Your task to perform on an android device: open chrome and create a bookmark for the current page Image 0: 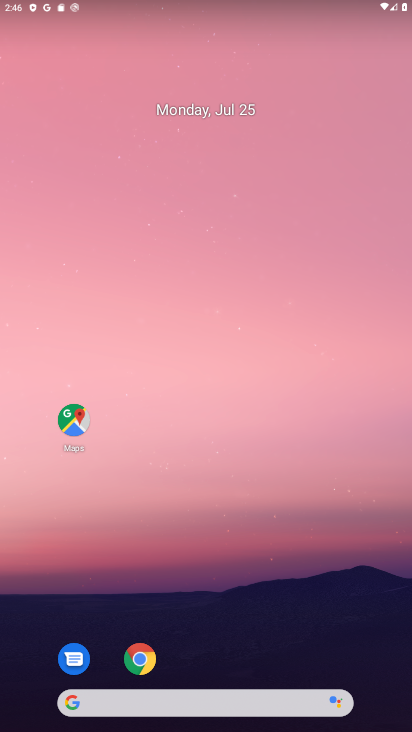
Step 0: drag from (222, 665) to (407, 65)
Your task to perform on an android device: open chrome and create a bookmark for the current page Image 1: 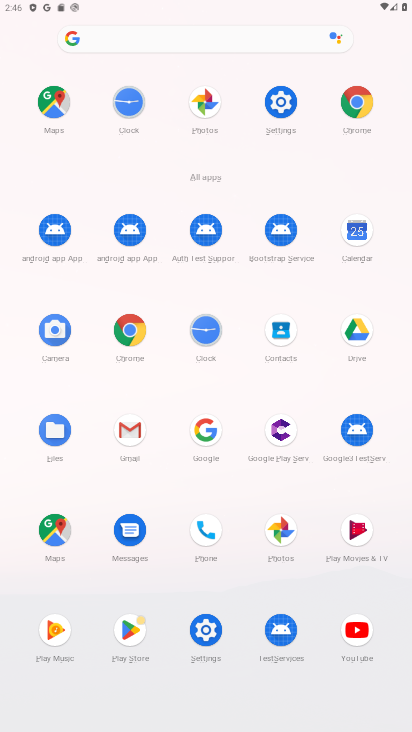
Step 1: click (133, 332)
Your task to perform on an android device: open chrome and create a bookmark for the current page Image 2: 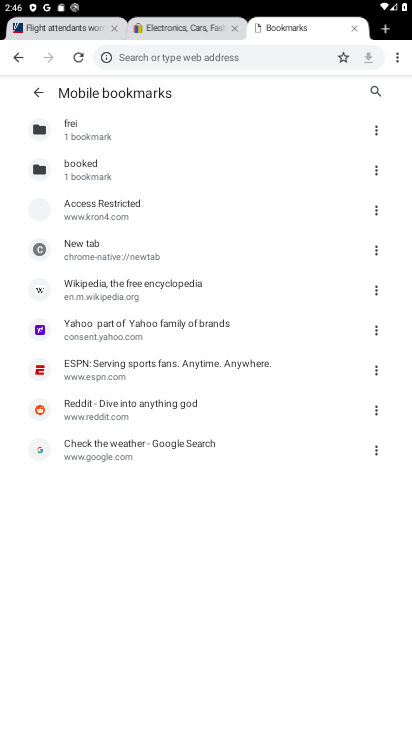
Step 2: click (348, 60)
Your task to perform on an android device: open chrome and create a bookmark for the current page Image 3: 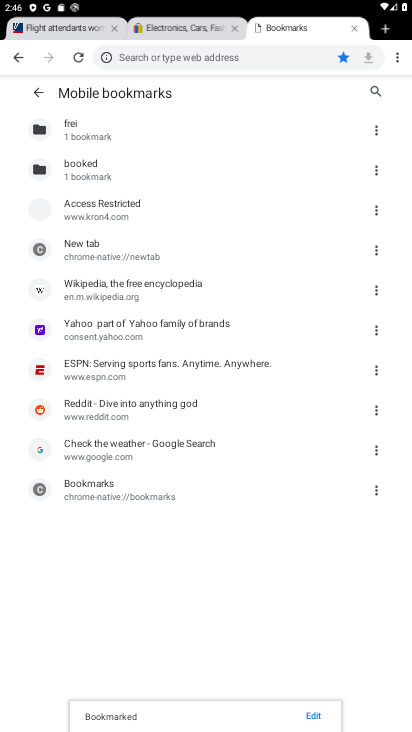
Step 3: task complete